Your task to perform on an android device: find photos in the google photos app Image 0: 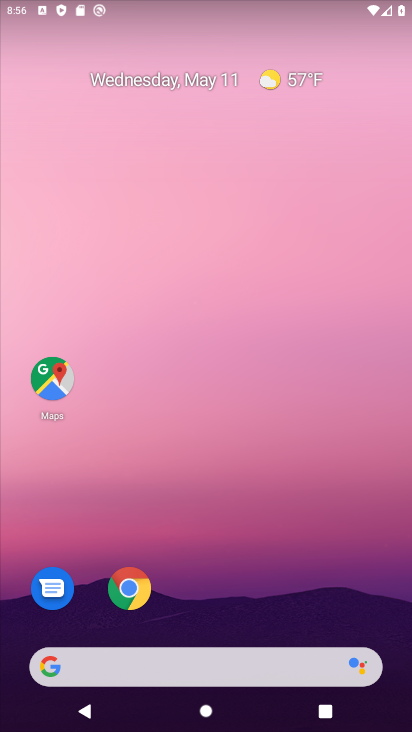
Step 0: drag from (249, 716) to (249, 132)
Your task to perform on an android device: find photos in the google photos app Image 1: 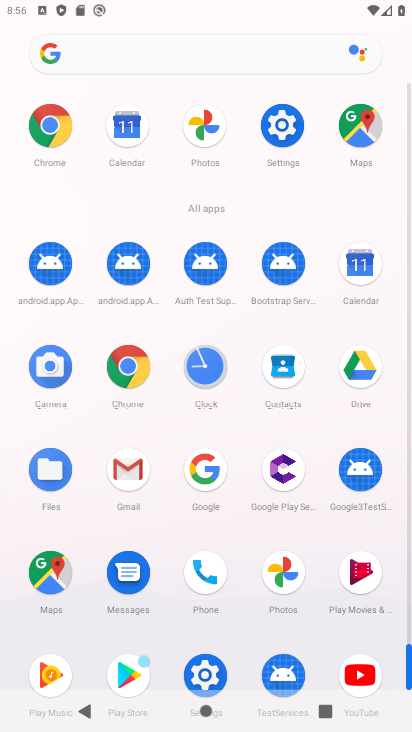
Step 1: click (292, 571)
Your task to perform on an android device: find photos in the google photos app Image 2: 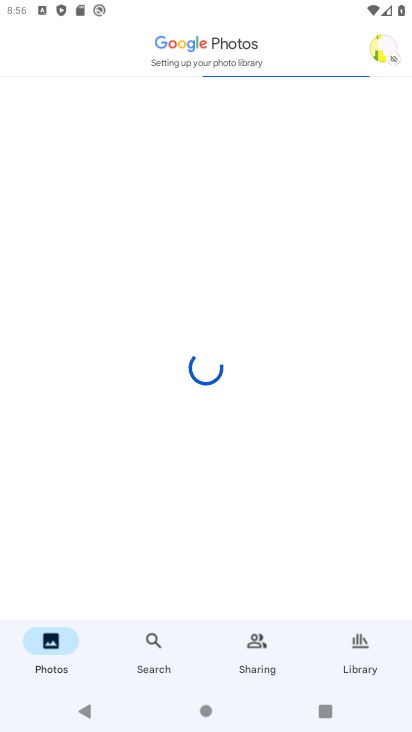
Step 2: task complete